Your task to perform on an android device: Go to ESPN.com Image 0: 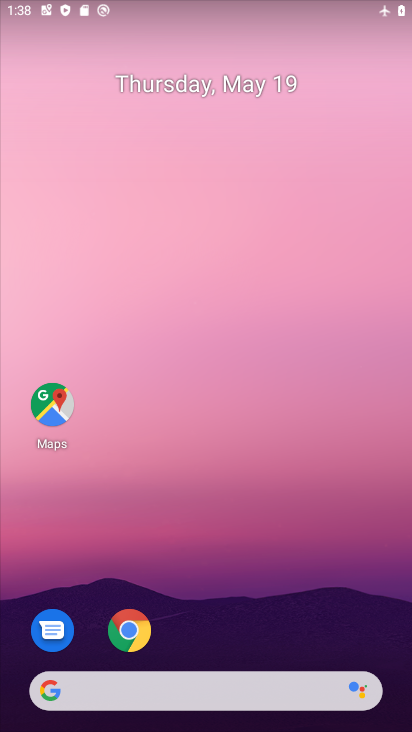
Step 0: click (137, 626)
Your task to perform on an android device: Go to ESPN.com Image 1: 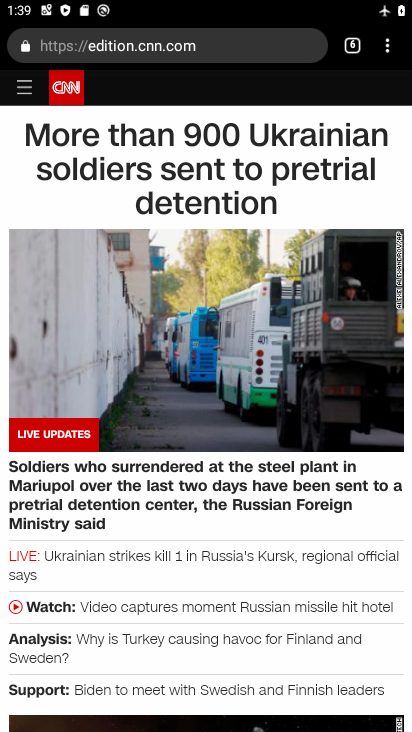
Step 1: click (352, 45)
Your task to perform on an android device: Go to ESPN.com Image 2: 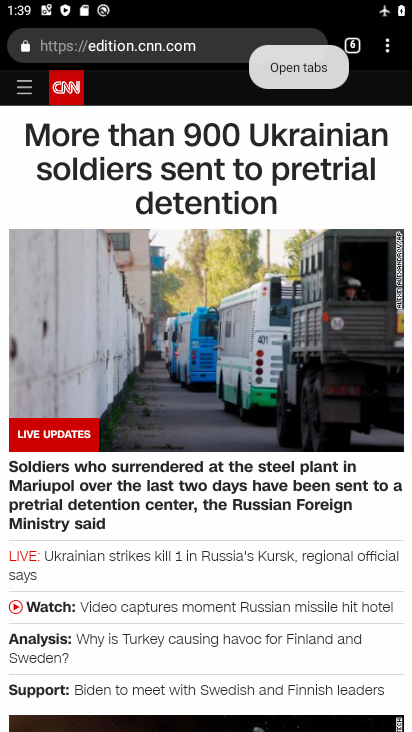
Step 2: click (354, 45)
Your task to perform on an android device: Go to ESPN.com Image 3: 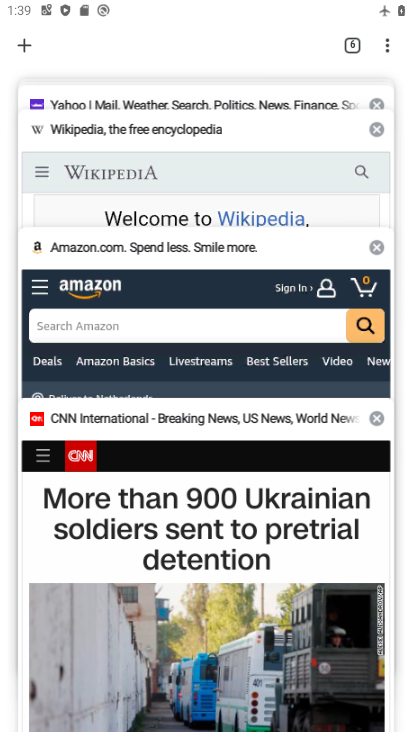
Step 3: drag from (242, 203) to (242, 618)
Your task to perform on an android device: Go to ESPN.com Image 4: 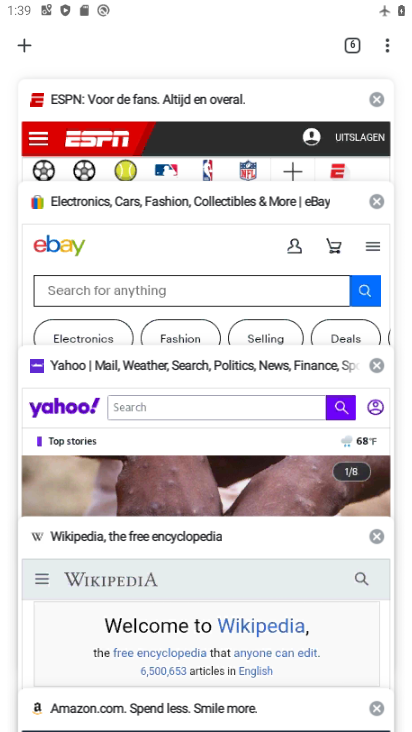
Step 4: click (75, 148)
Your task to perform on an android device: Go to ESPN.com Image 5: 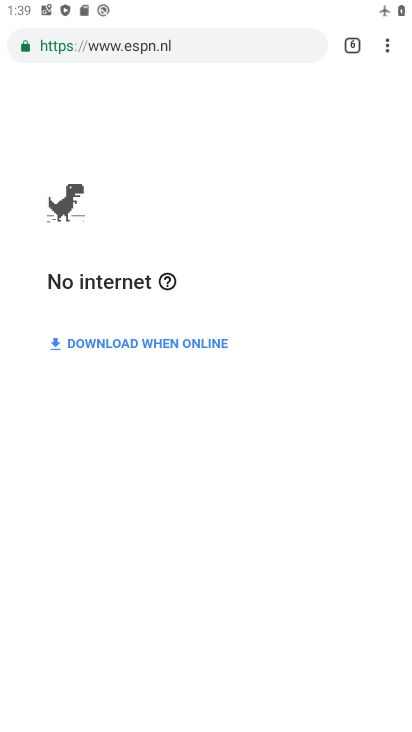
Step 5: task complete